Your task to perform on an android device: Go to Android settings Image 0: 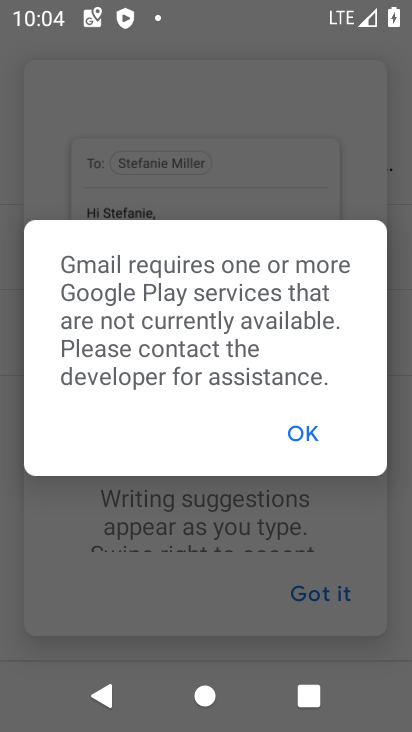
Step 0: press home button
Your task to perform on an android device: Go to Android settings Image 1: 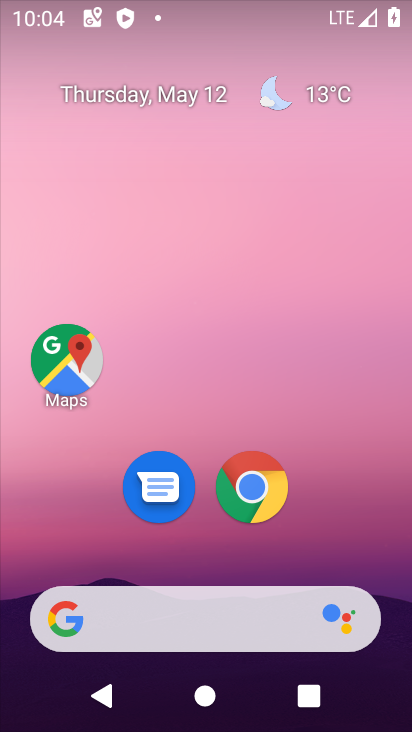
Step 1: drag from (360, 548) to (408, 0)
Your task to perform on an android device: Go to Android settings Image 2: 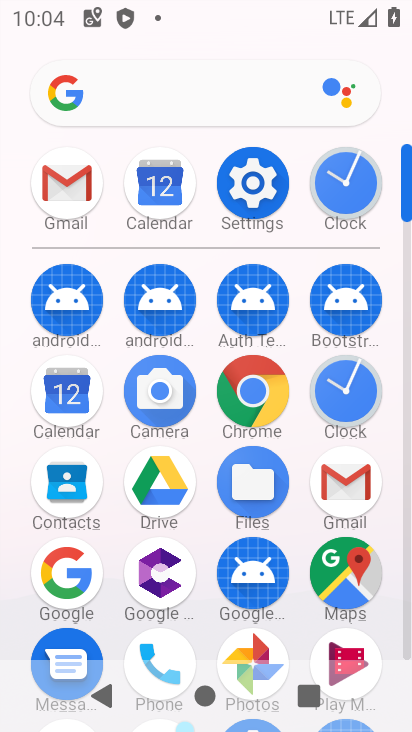
Step 2: click (252, 194)
Your task to perform on an android device: Go to Android settings Image 3: 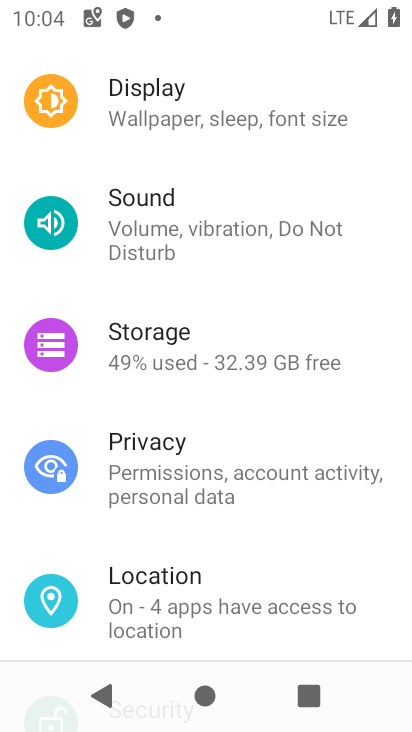
Step 3: task complete